Your task to perform on an android device: Search for a nightstand on IKEA. Image 0: 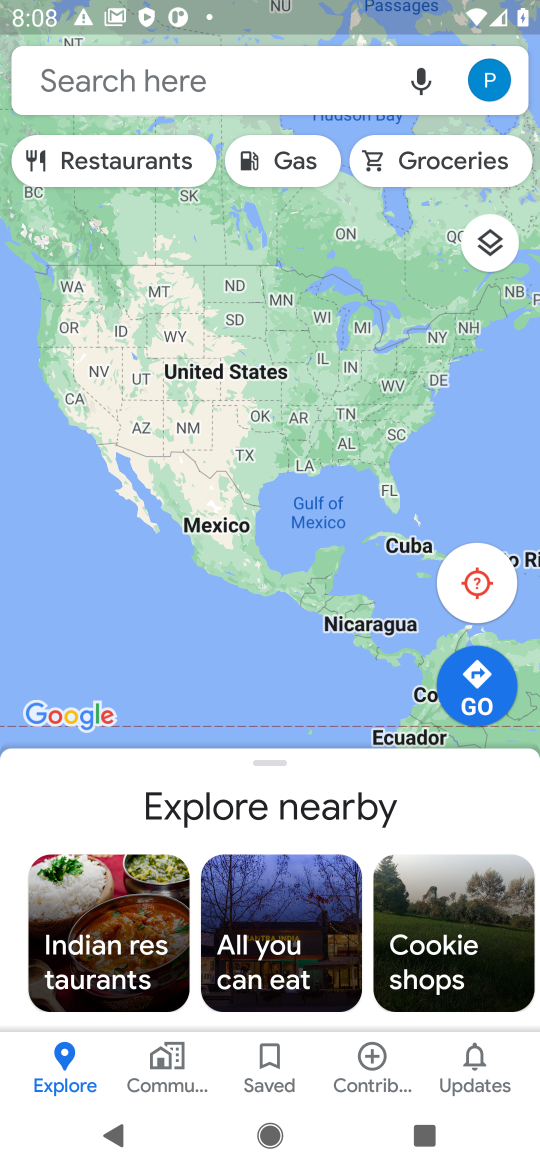
Step 0: press home button
Your task to perform on an android device: Search for a nightstand on IKEA. Image 1: 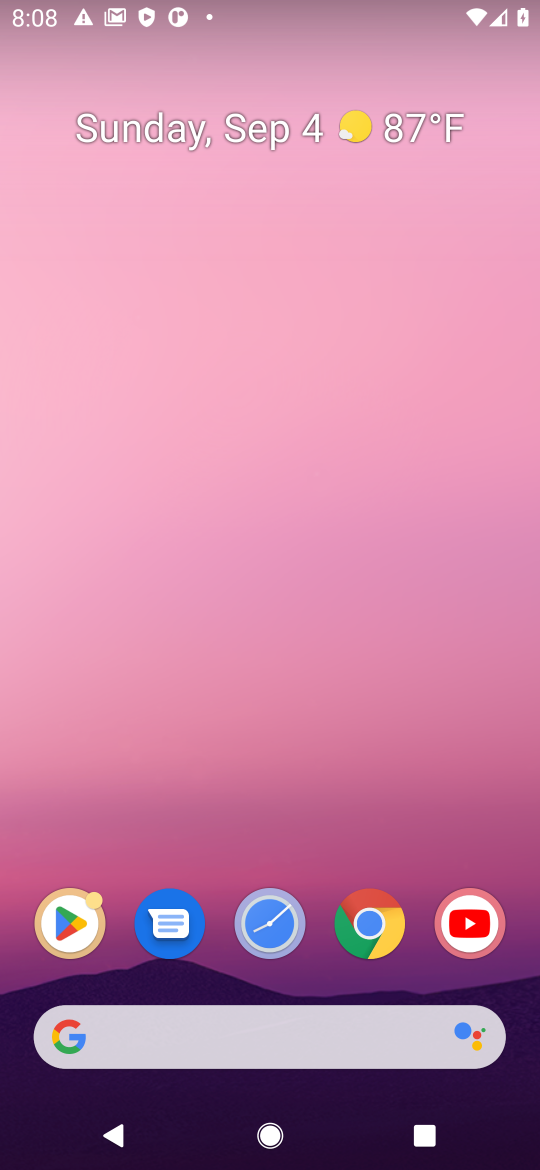
Step 1: click (414, 1029)
Your task to perform on an android device: Search for a nightstand on IKEA. Image 2: 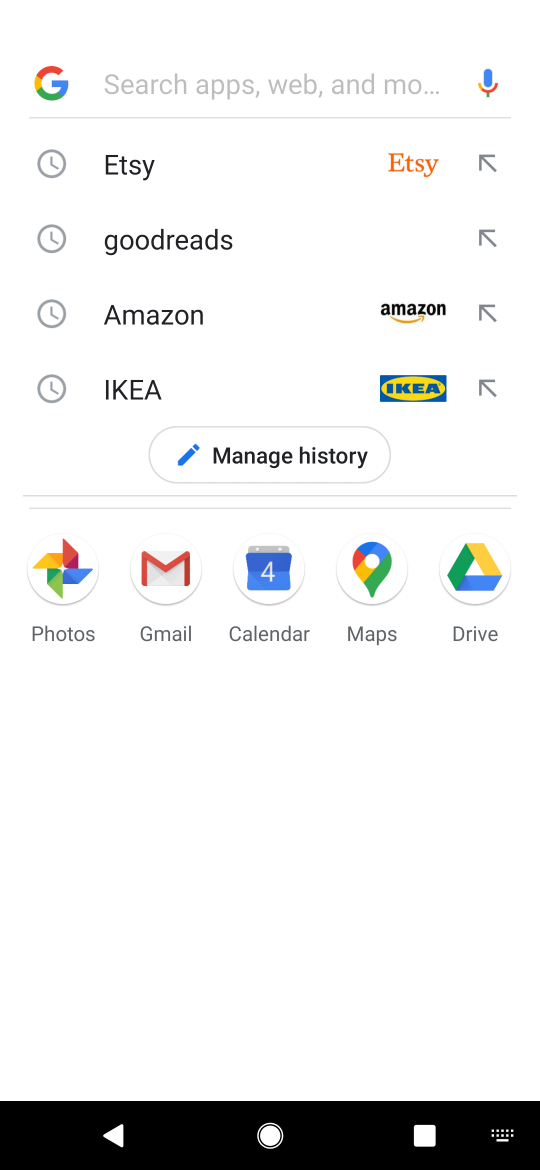
Step 2: press enter
Your task to perform on an android device: Search for a nightstand on IKEA. Image 3: 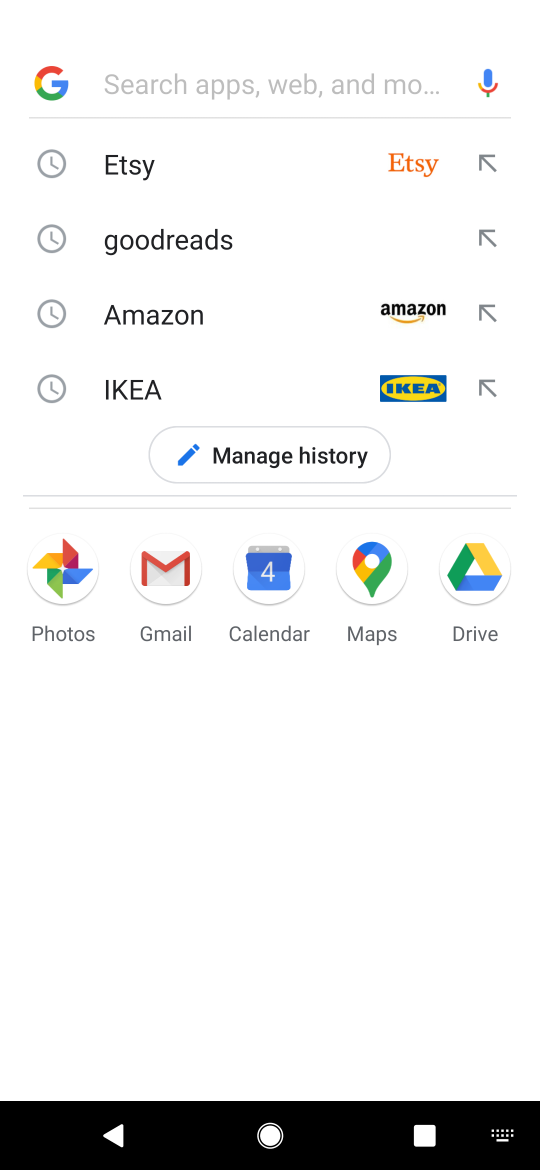
Step 3: type "ikea"
Your task to perform on an android device: Search for a nightstand on IKEA. Image 4: 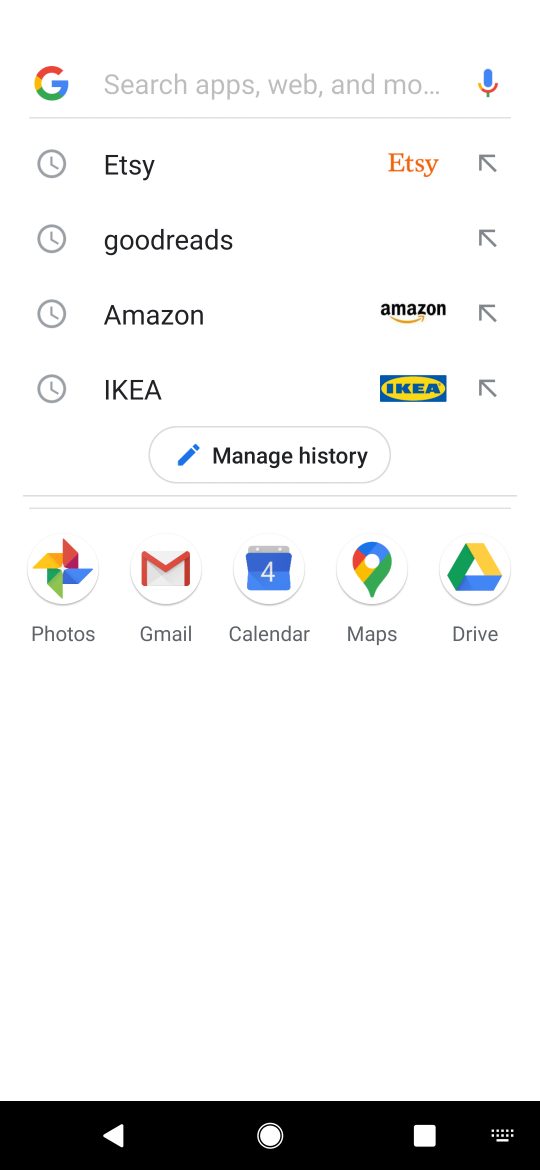
Step 4: click (140, 390)
Your task to perform on an android device: Search for a nightstand on IKEA. Image 5: 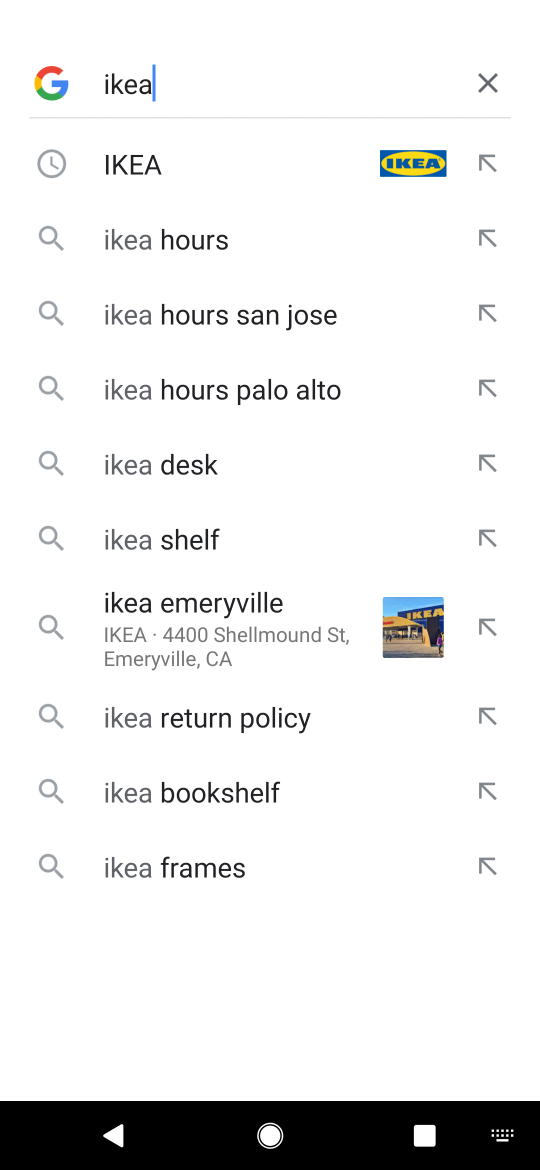
Step 5: press enter
Your task to perform on an android device: Search for a nightstand on IKEA. Image 6: 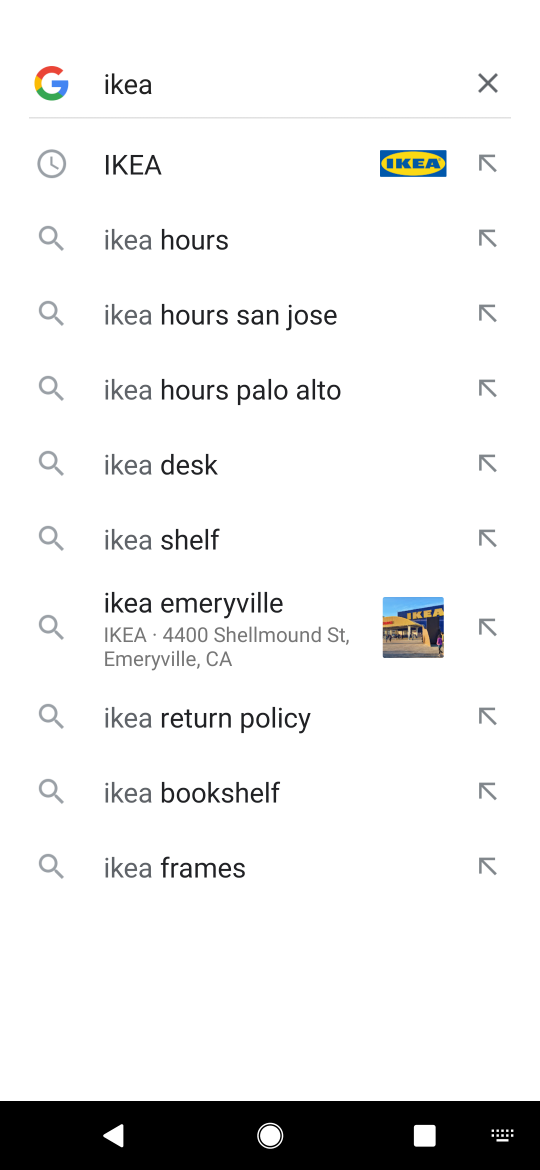
Step 6: click (148, 172)
Your task to perform on an android device: Search for a nightstand on IKEA. Image 7: 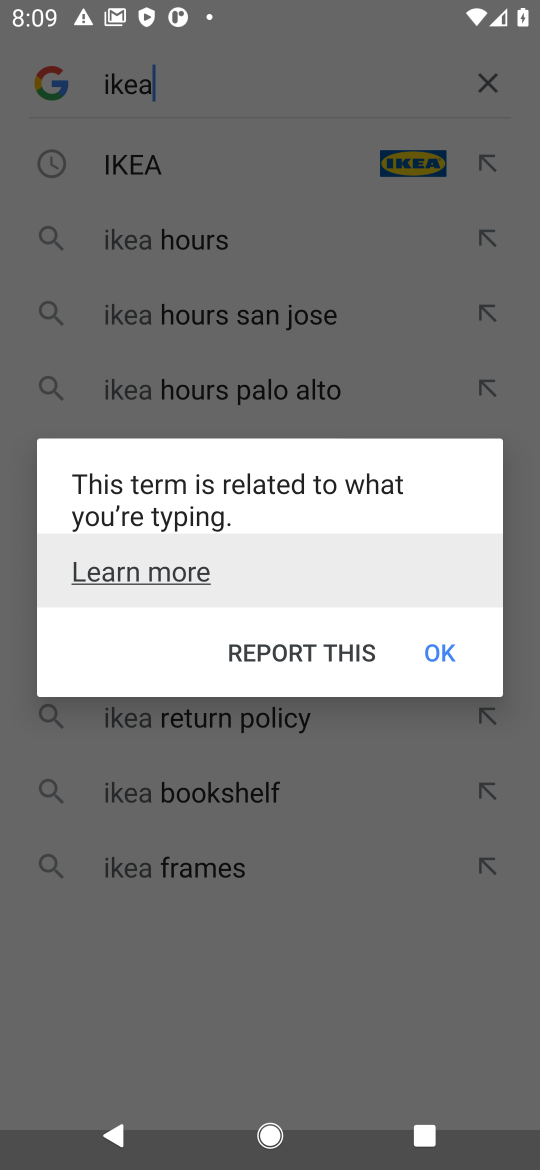
Step 7: click (128, 162)
Your task to perform on an android device: Search for a nightstand on IKEA. Image 8: 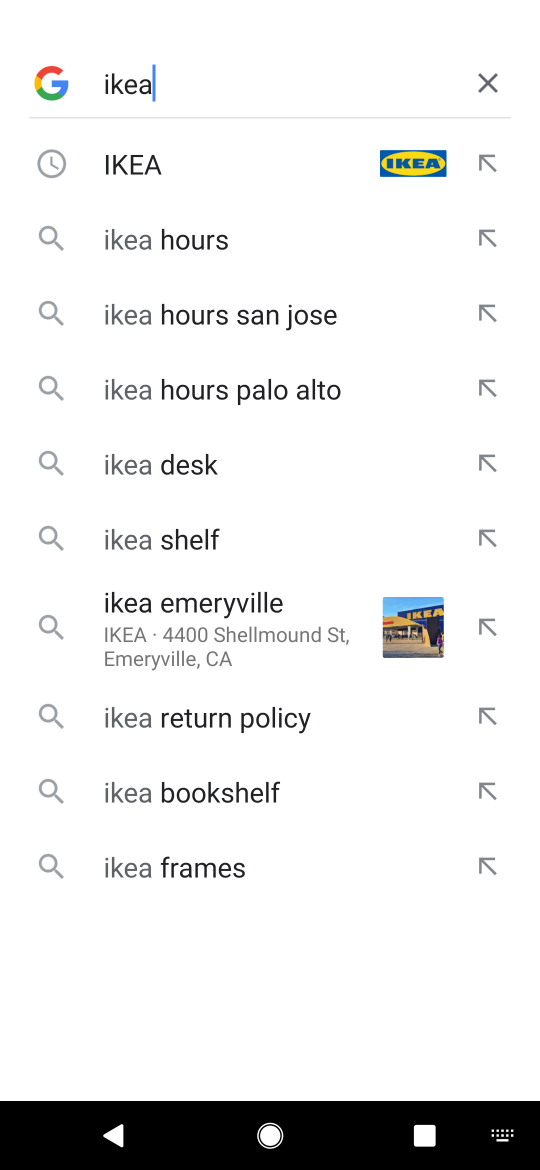
Step 8: click (125, 167)
Your task to perform on an android device: Search for a nightstand on IKEA. Image 9: 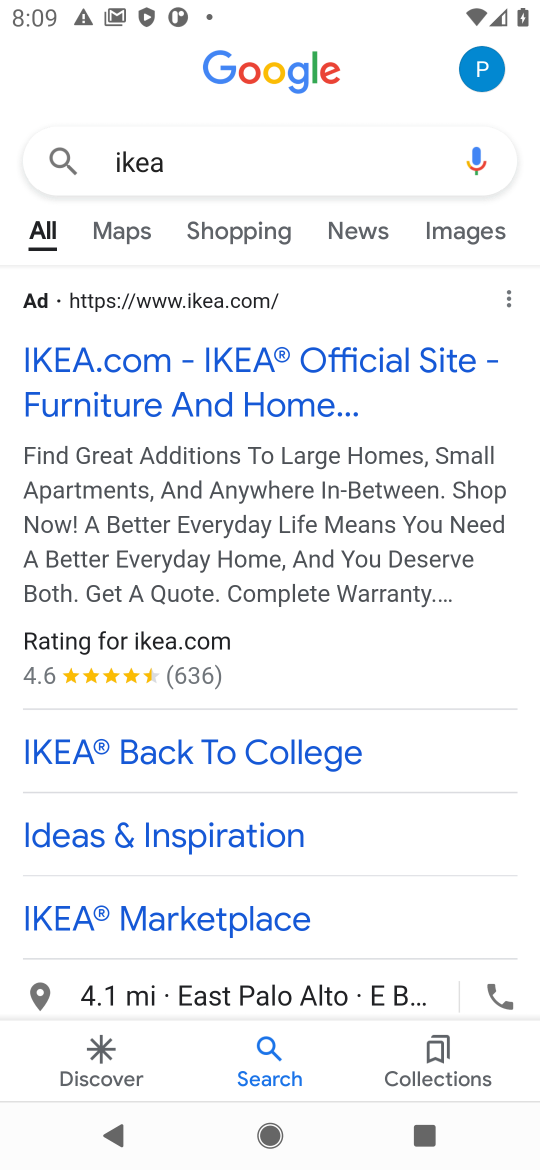
Step 9: click (241, 369)
Your task to perform on an android device: Search for a nightstand on IKEA. Image 10: 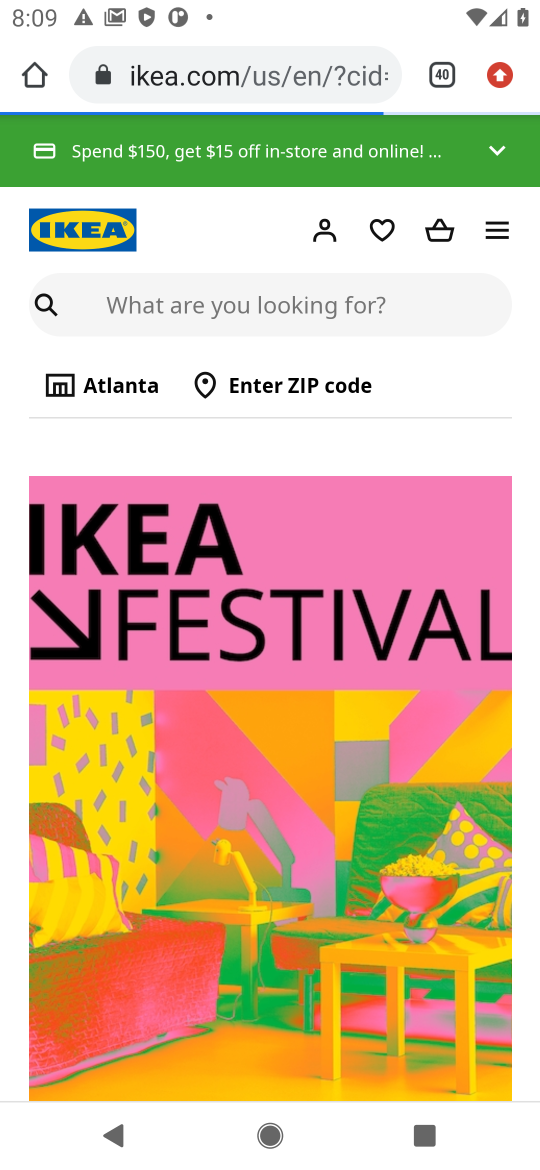
Step 10: click (304, 297)
Your task to perform on an android device: Search for a nightstand on IKEA. Image 11: 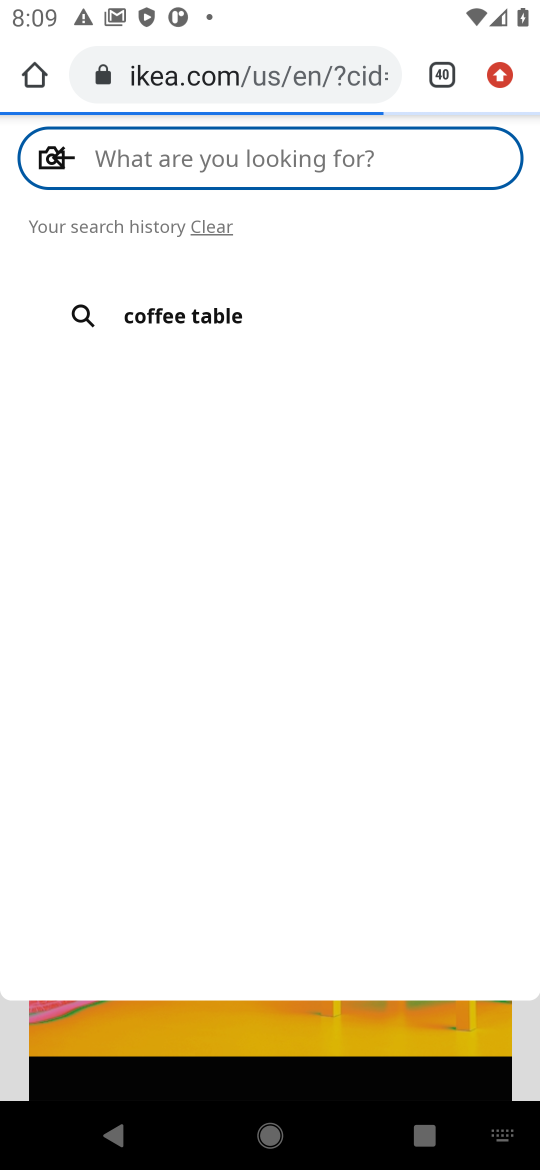
Step 11: click (362, 157)
Your task to perform on an android device: Search for a nightstand on IKEA. Image 12: 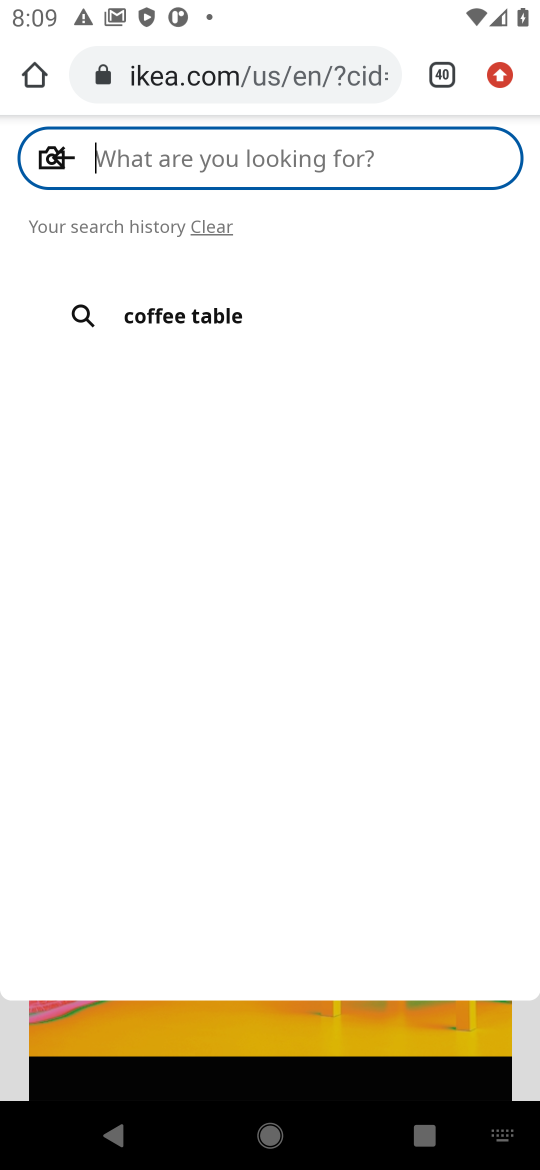
Step 12: press enter
Your task to perform on an android device: Search for a nightstand on IKEA. Image 13: 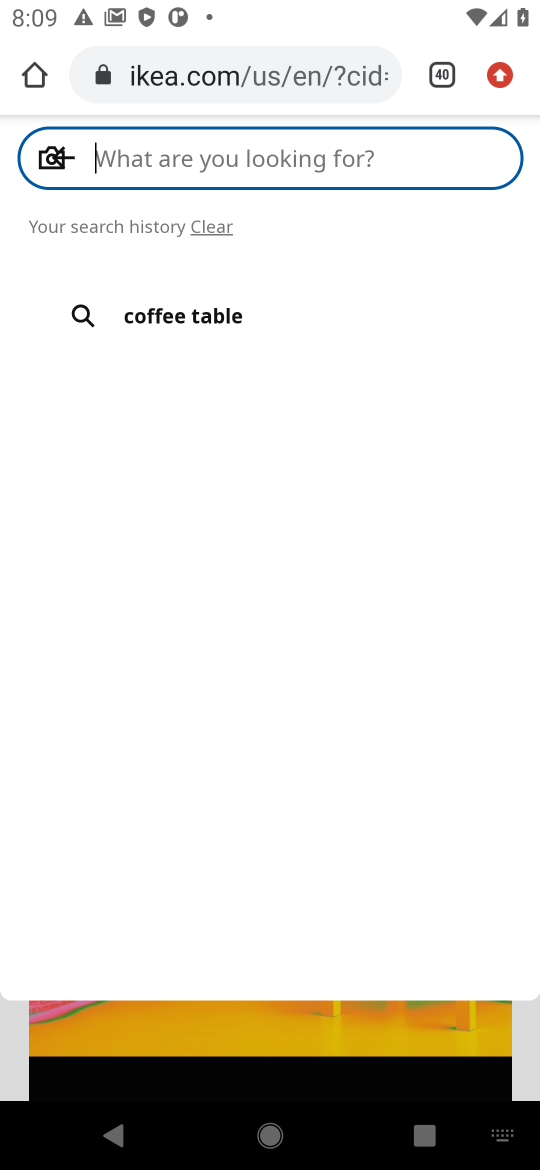
Step 13: type "nightstand"
Your task to perform on an android device: Search for a nightstand on IKEA. Image 14: 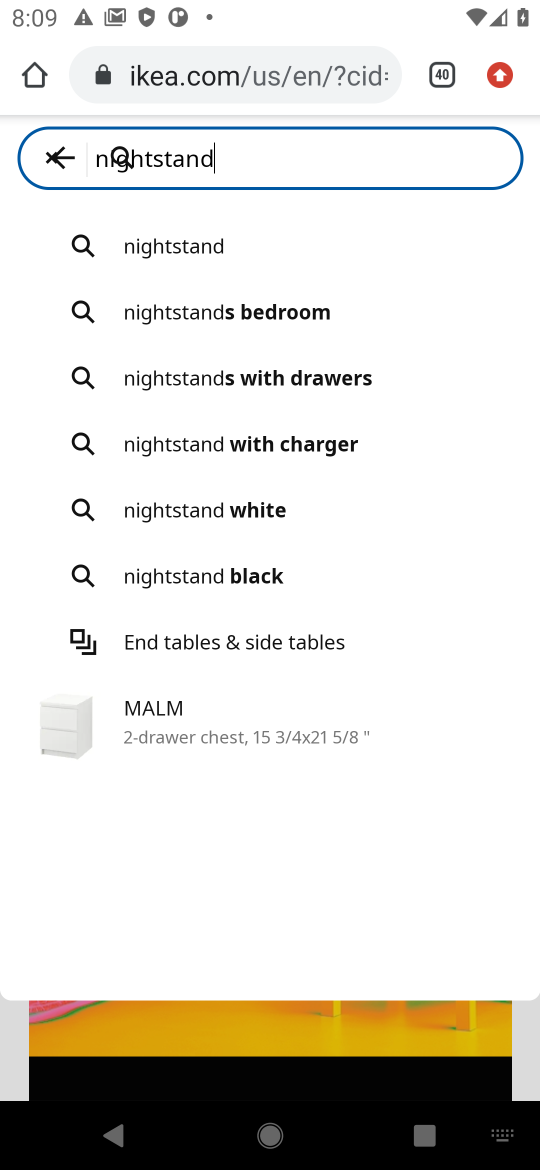
Step 14: click (188, 244)
Your task to perform on an android device: Search for a nightstand on IKEA. Image 15: 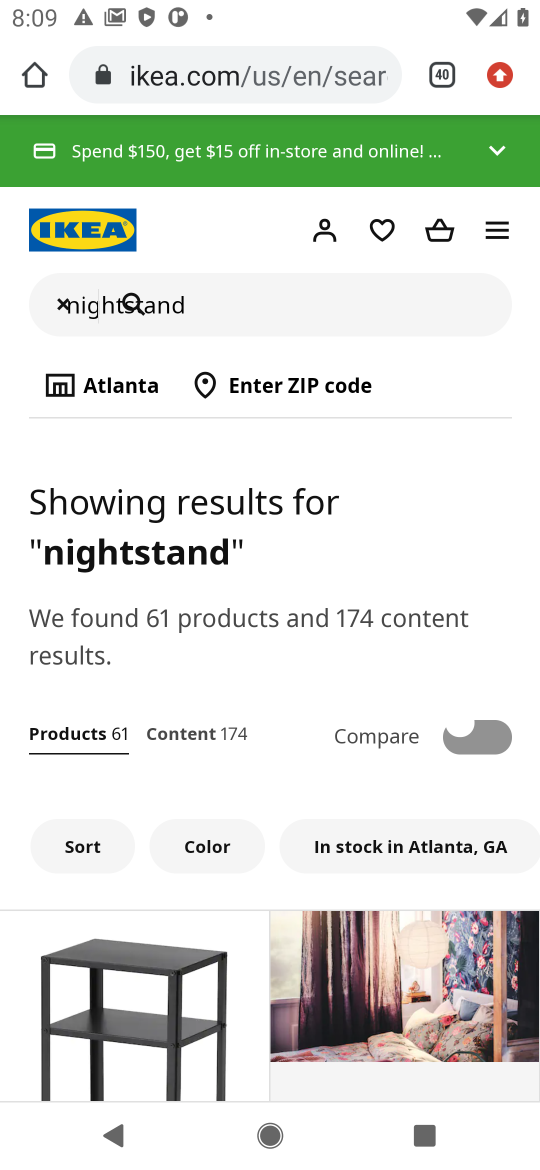
Step 15: task complete